Your task to perform on an android device: set an alarm Image 0: 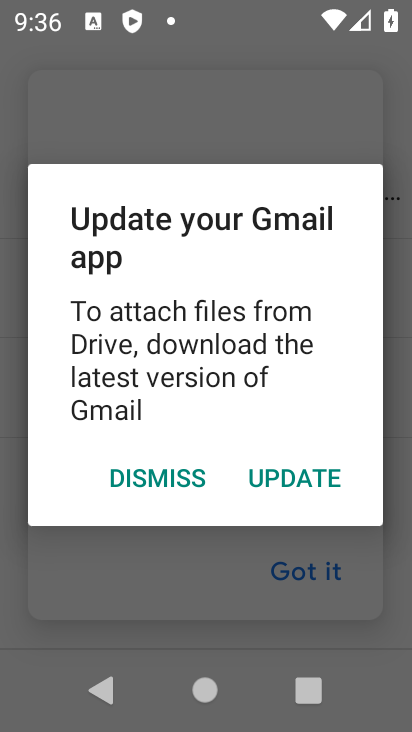
Step 0: press home button
Your task to perform on an android device: set an alarm Image 1: 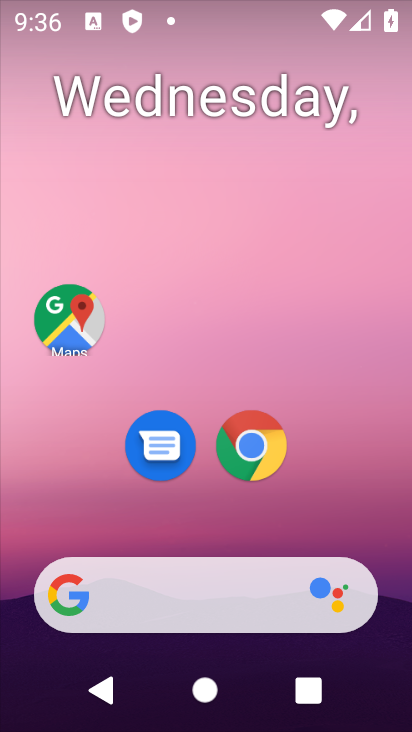
Step 1: drag from (371, 503) to (409, 282)
Your task to perform on an android device: set an alarm Image 2: 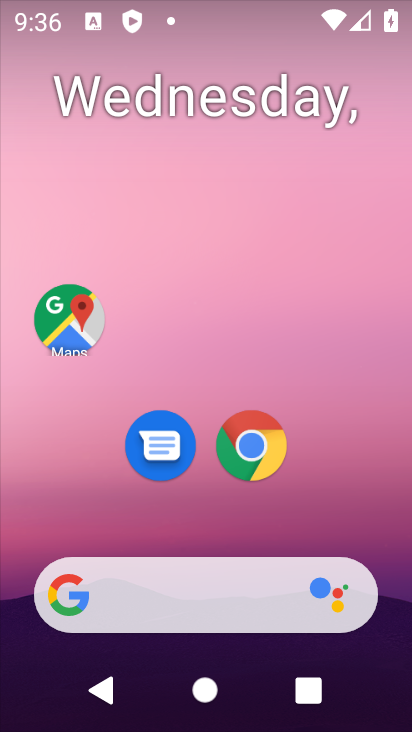
Step 2: drag from (364, 521) to (370, 60)
Your task to perform on an android device: set an alarm Image 3: 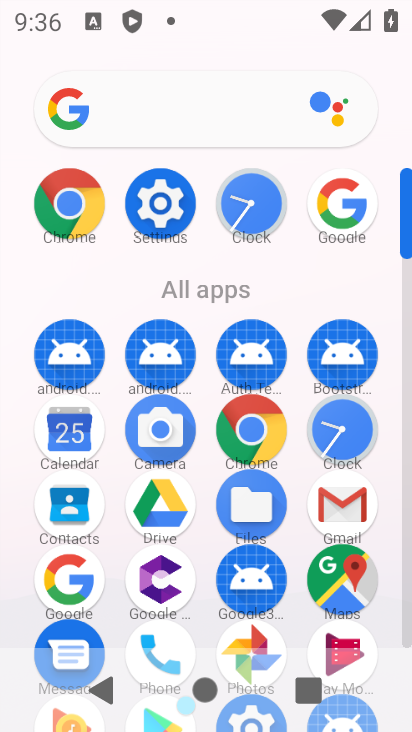
Step 3: click (266, 228)
Your task to perform on an android device: set an alarm Image 4: 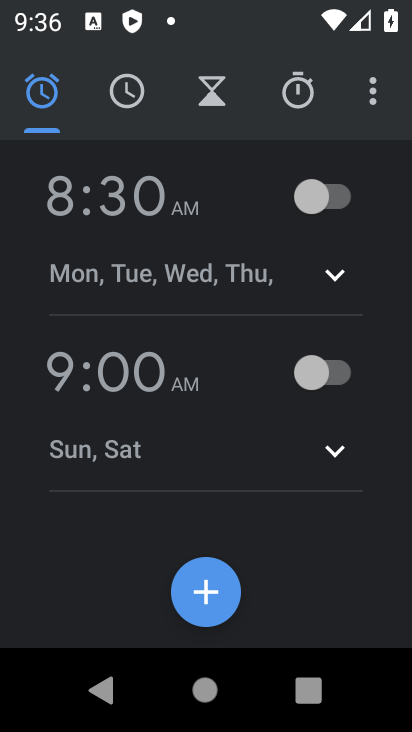
Step 4: click (332, 206)
Your task to perform on an android device: set an alarm Image 5: 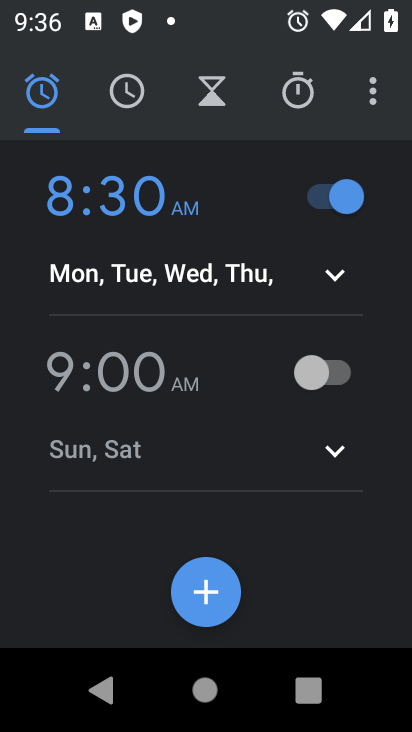
Step 5: task complete